Your task to perform on an android device: Go to calendar. Show me events next week Image 0: 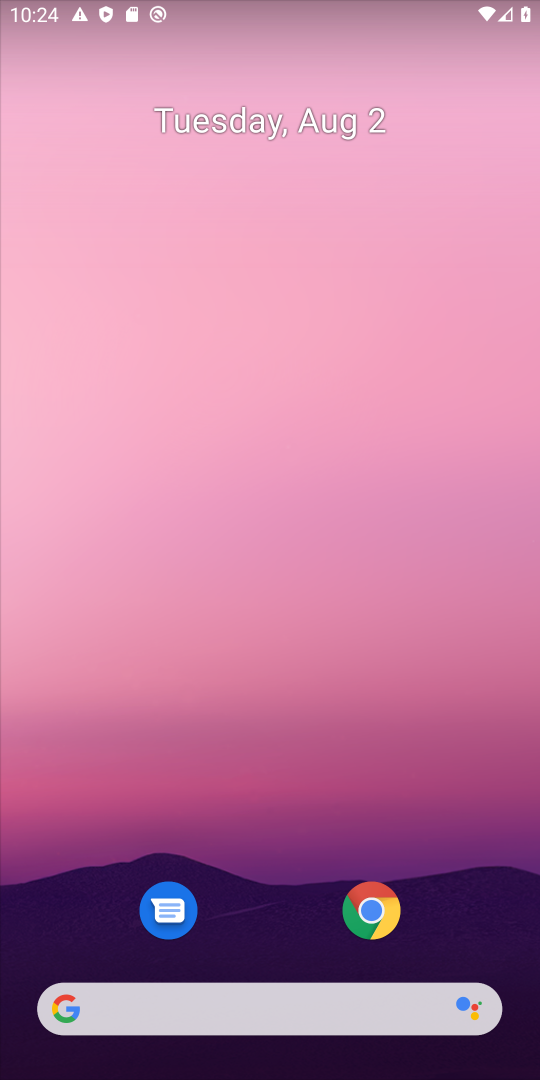
Step 0: drag from (256, 941) to (243, 110)
Your task to perform on an android device: Go to calendar. Show me events next week Image 1: 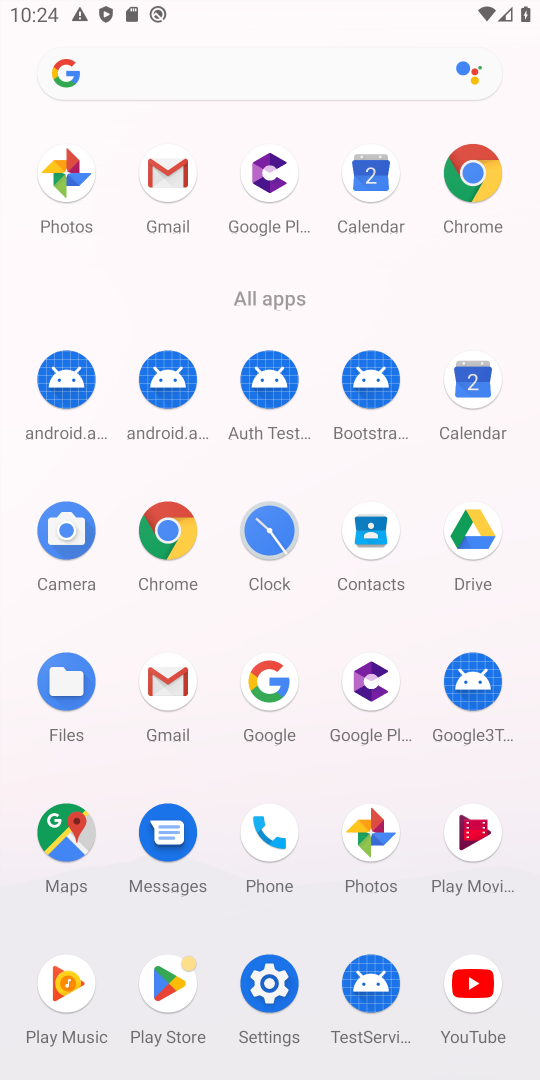
Step 1: click (469, 391)
Your task to perform on an android device: Go to calendar. Show me events next week Image 2: 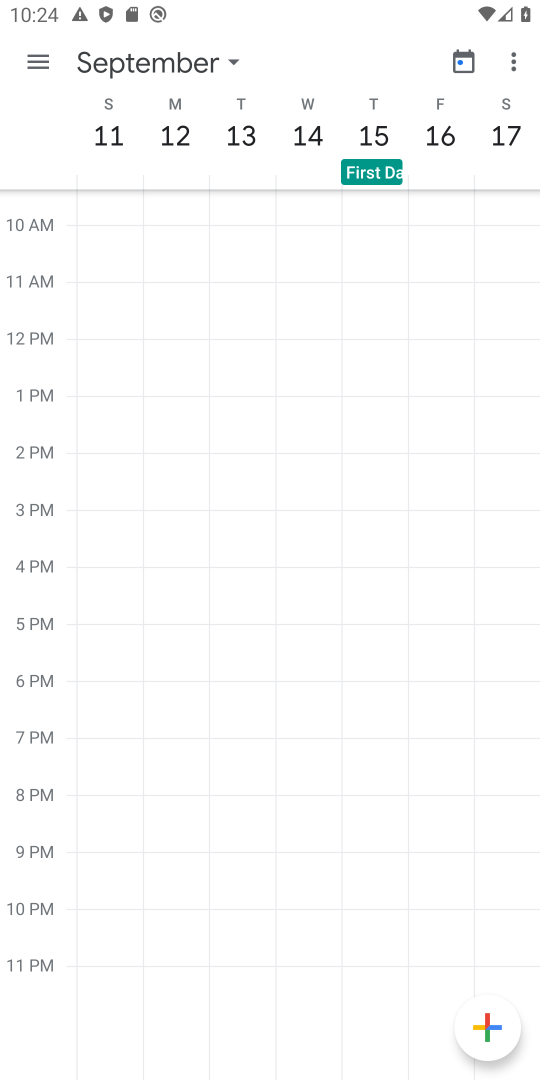
Step 2: click (39, 66)
Your task to perform on an android device: Go to calendar. Show me events next week Image 3: 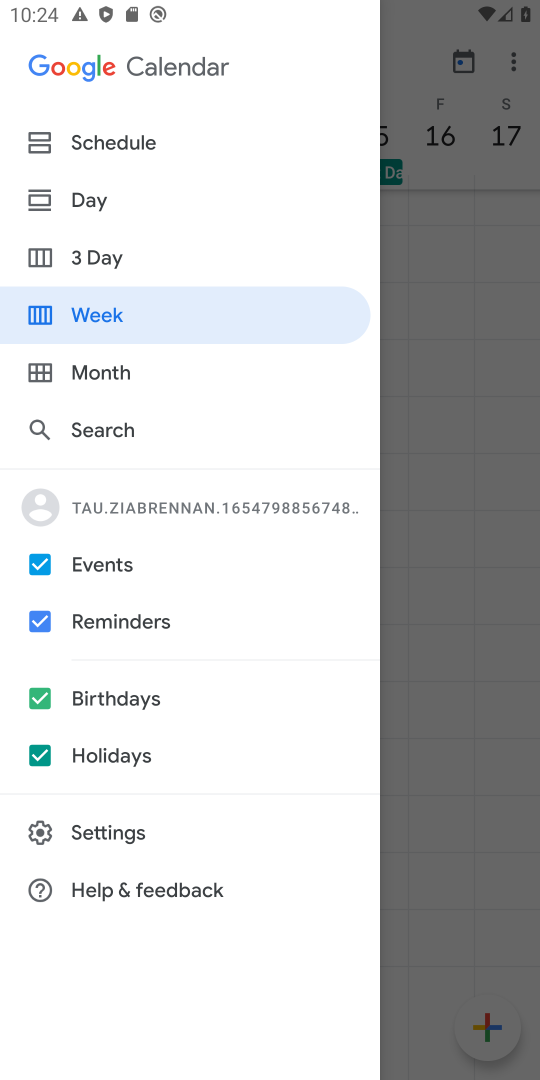
Step 3: click (452, 82)
Your task to perform on an android device: Go to calendar. Show me events next week Image 4: 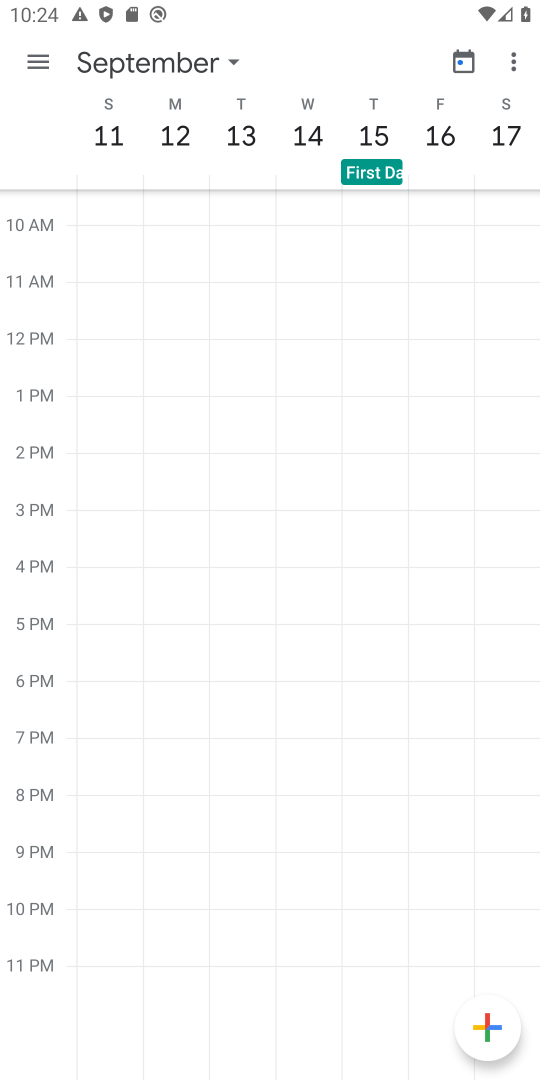
Step 4: click (457, 66)
Your task to perform on an android device: Go to calendar. Show me events next week Image 5: 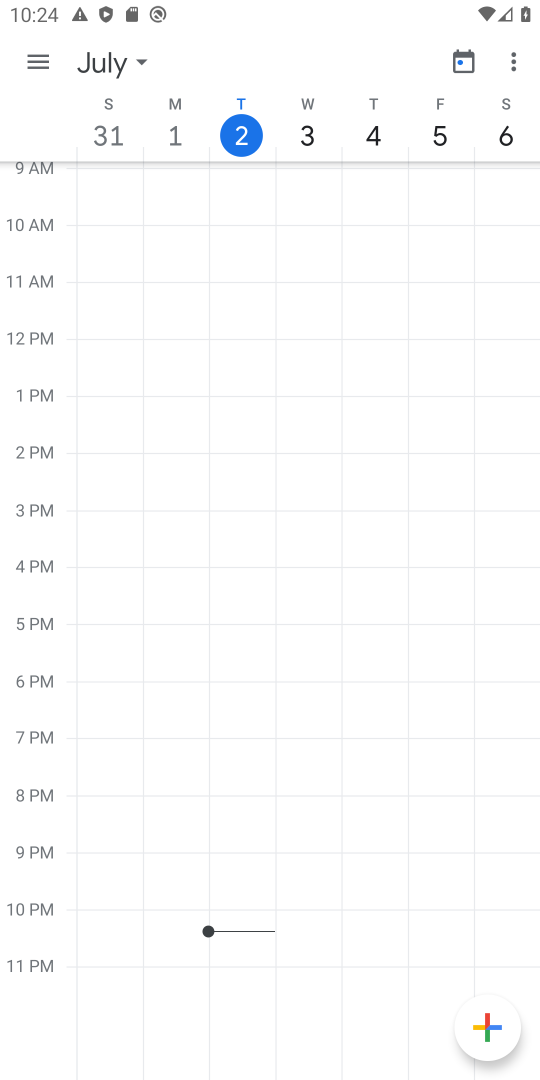
Step 5: task complete